Your task to perform on an android device: See recent photos Image 0: 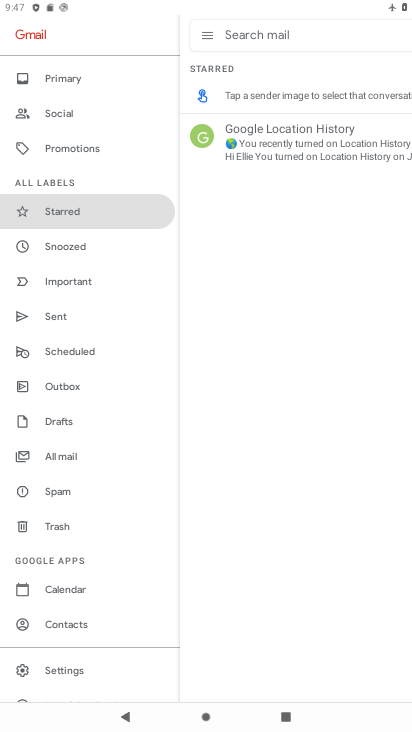
Step 0: press home button
Your task to perform on an android device: See recent photos Image 1: 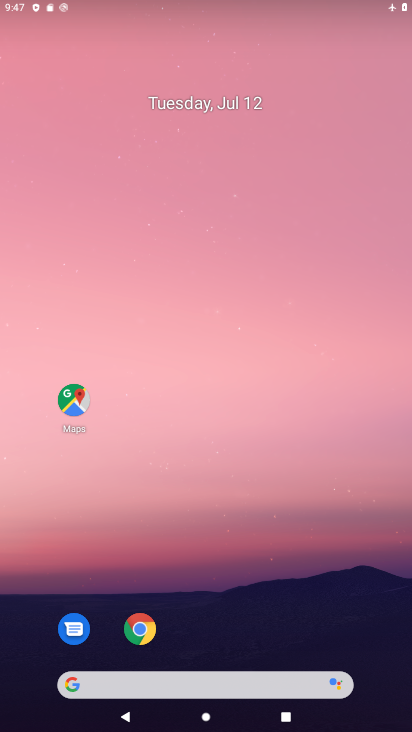
Step 1: drag from (241, 521) to (254, 11)
Your task to perform on an android device: See recent photos Image 2: 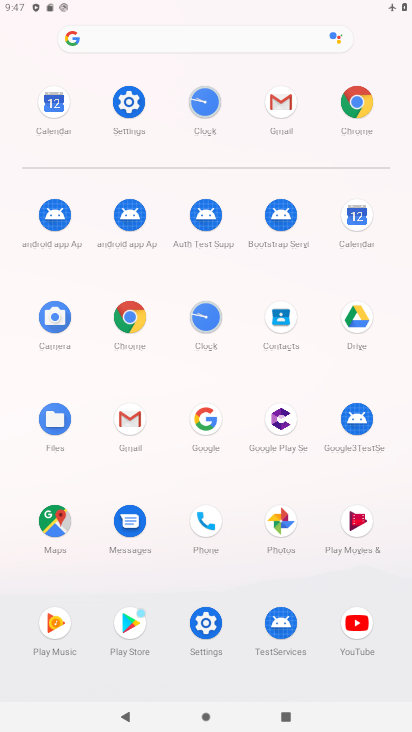
Step 2: click (287, 524)
Your task to perform on an android device: See recent photos Image 3: 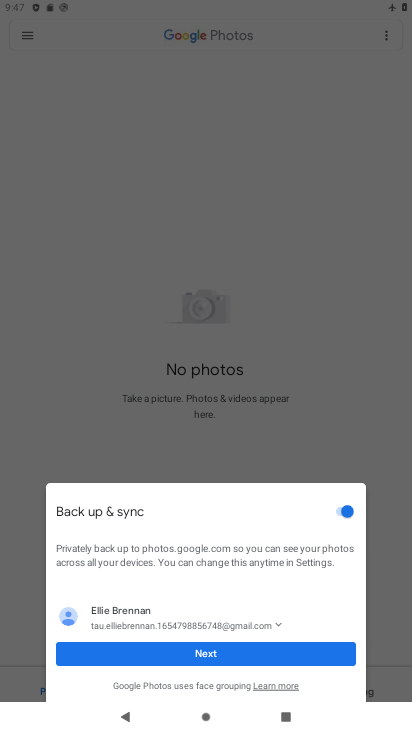
Step 3: click (217, 652)
Your task to perform on an android device: See recent photos Image 4: 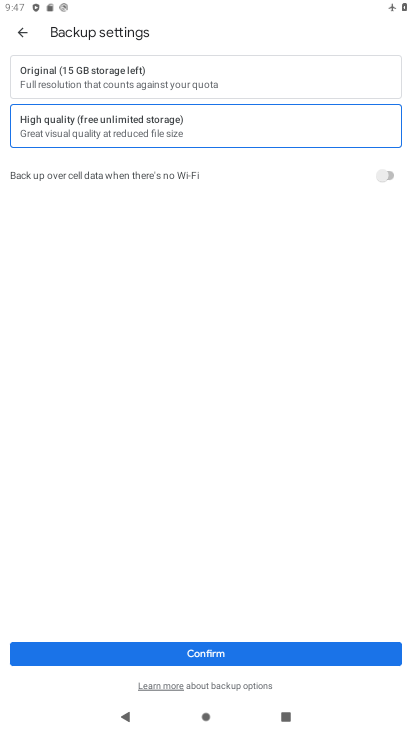
Step 4: press back button
Your task to perform on an android device: See recent photos Image 5: 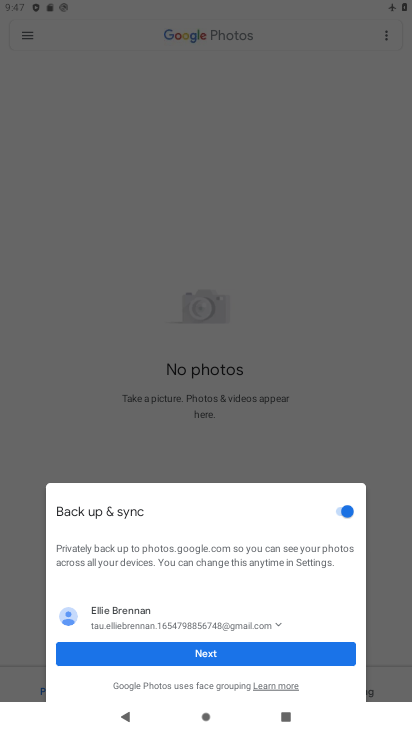
Step 5: click (206, 370)
Your task to perform on an android device: See recent photos Image 6: 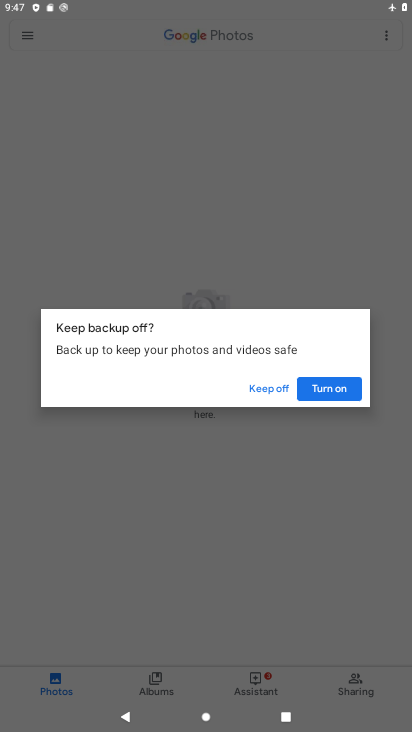
Step 6: click (345, 381)
Your task to perform on an android device: See recent photos Image 7: 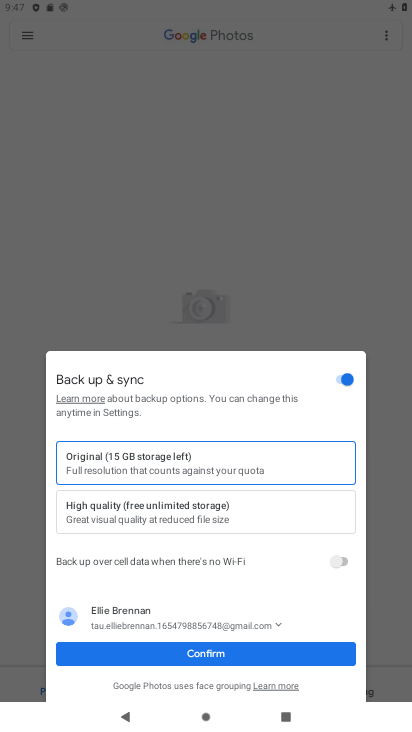
Step 7: click (240, 660)
Your task to perform on an android device: See recent photos Image 8: 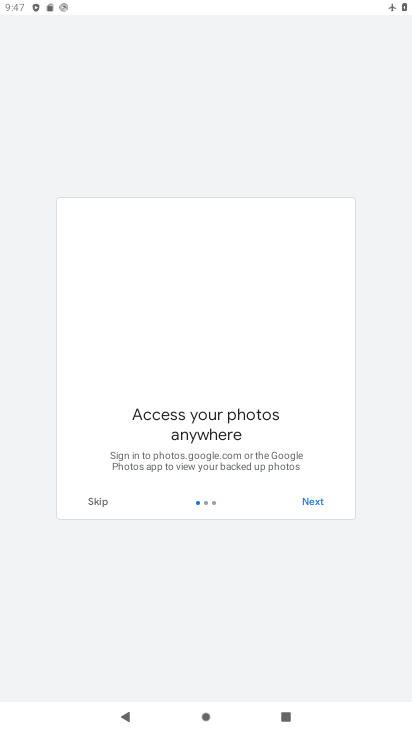
Step 8: task complete